Your task to perform on an android device: toggle translation in the chrome app Image 0: 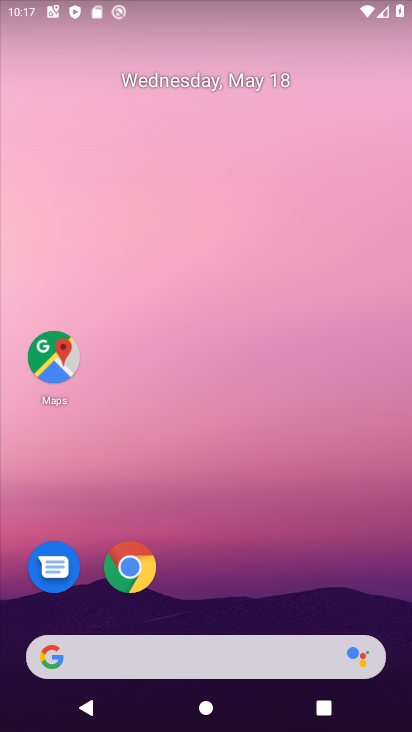
Step 0: drag from (308, 659) to (242, 98)
Your task to perform on an android device: toggle translation in the chrome app Image 1: 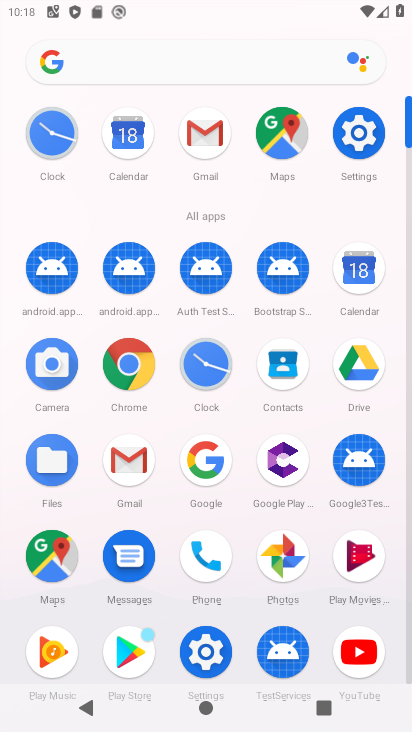
Step 1: click (147, 360)
Your task to perform on an android device: toggle translation in the chrome app Image 2: 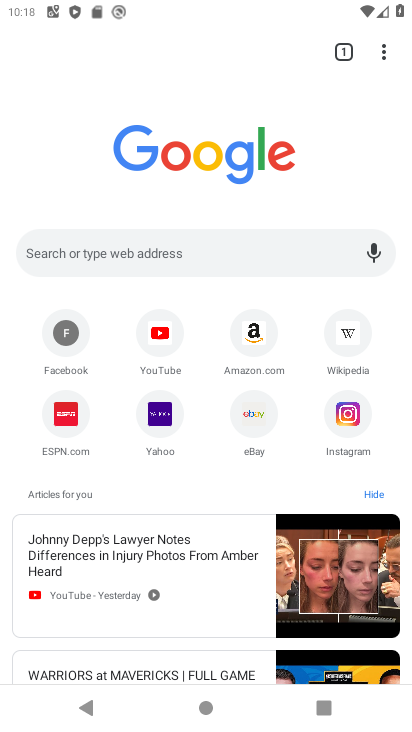
Step 2: click (387, 62)
Your task to perform on an android device: toggle translation in the chrome app Image 3: 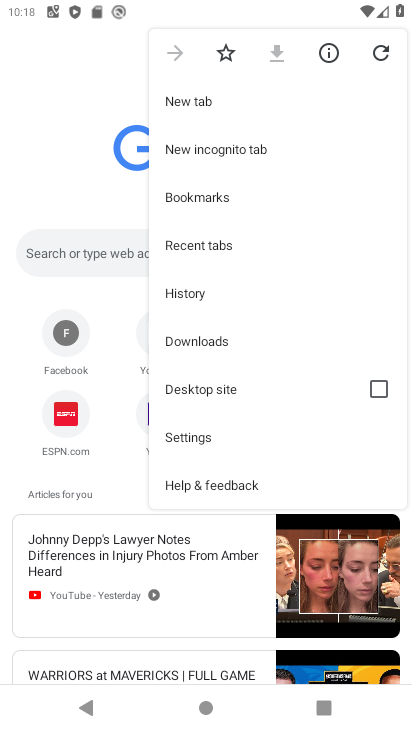
Step 3: click (188, 436)
Your task to perform on an android device: toggle translation in the chrome app Image 4: 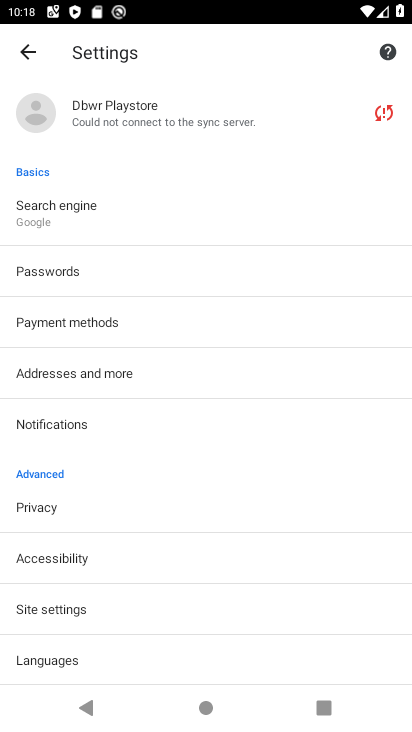
Step 4: click (81, 600)
Your task to perform on an android device: toggle translation in the chrome app Image 5: 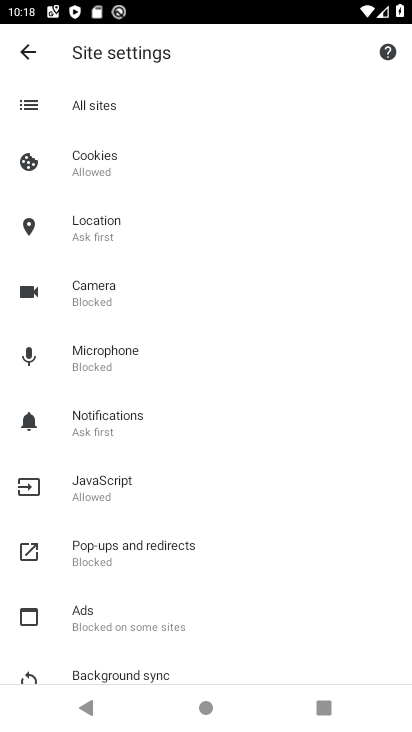
Step 5: click (24, 38)
Your task to perform on an android device: toggle translation in the chrome app Image 6: 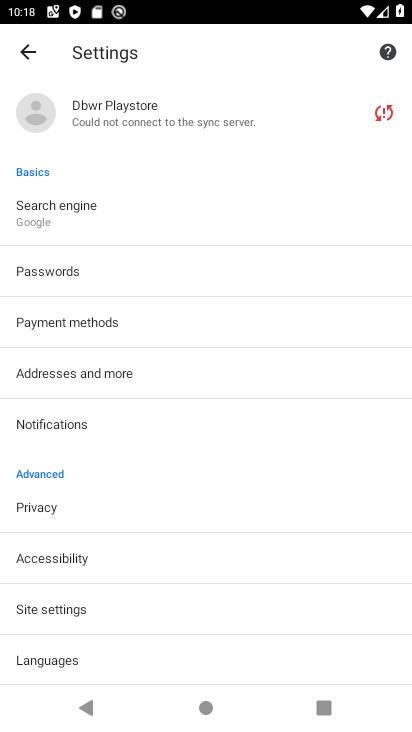
Step 6: click (52, 645)
Your task to perform on an android device: toggle translation in the chrome app Image 7: 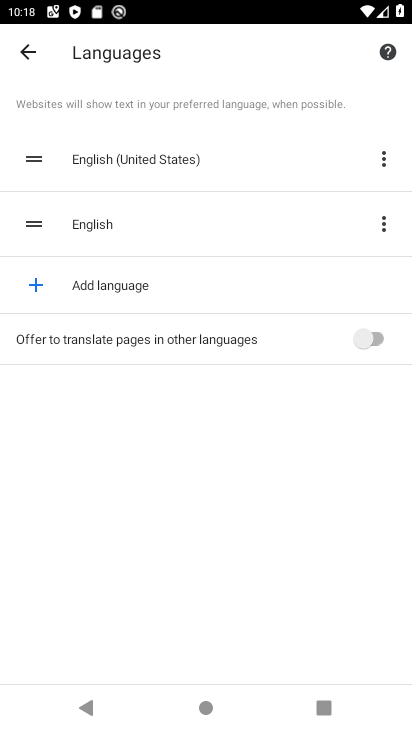
Step 7: click (150, 349)
Your task to perform on an android device: toggle translation in the chrome app Image 8: 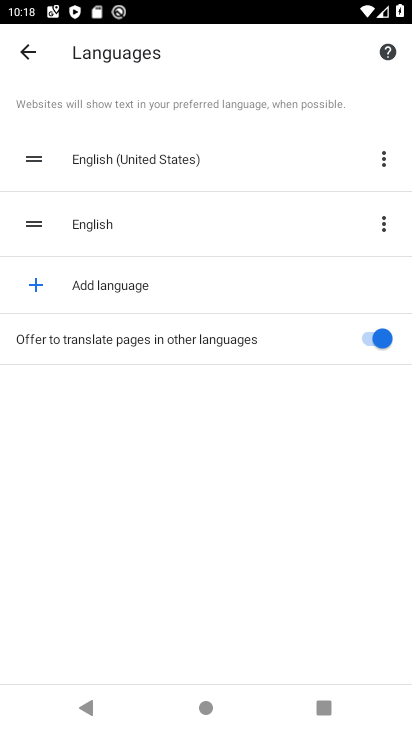
Step 8: task complete